Your task to perform on an android device: Show me the alarms in the clock app Image 0: 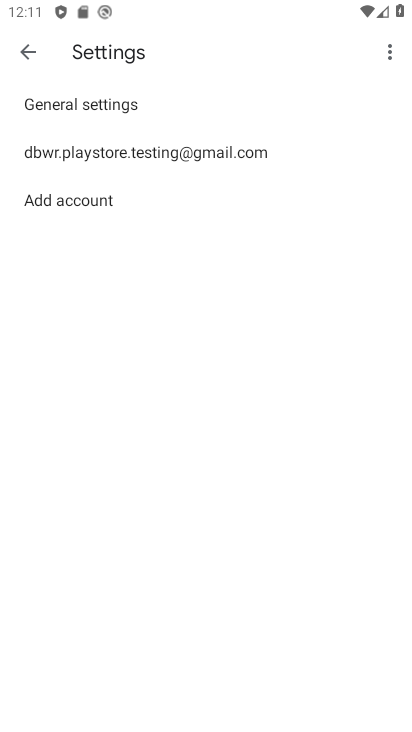
Step 0: press home button
Your task to perform on an android device: Show me the alarms in the clock app Image 1: 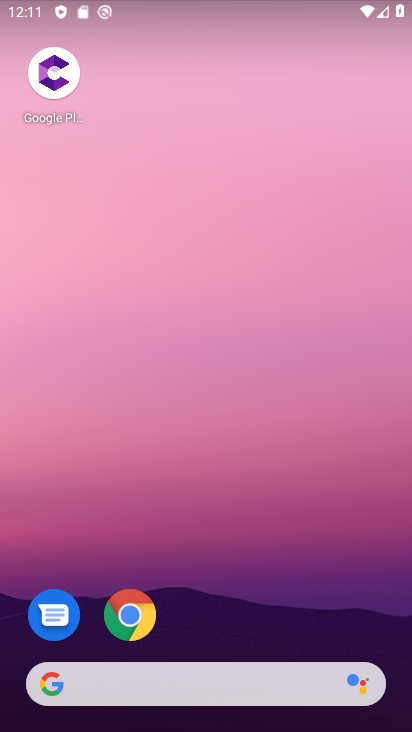
Step 1: drag from (181, 648) to (249, 162)
Your task to perform on an android device: Show me the alarms in the clock app Image 2: 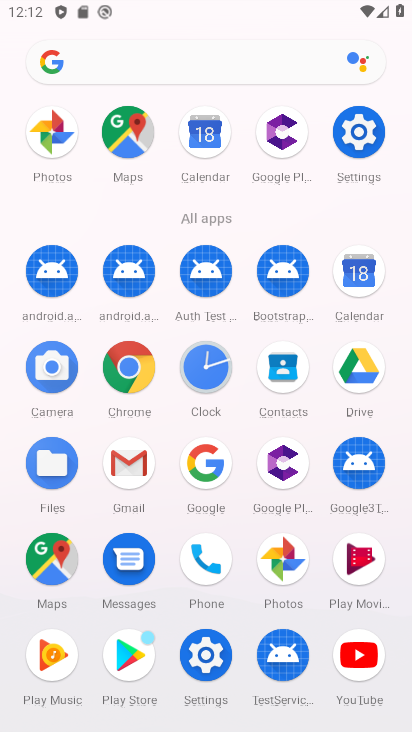
Step 2: click (224, 364)
Your task to perform on an android device: Show me the alarms in the clock app Image 3: 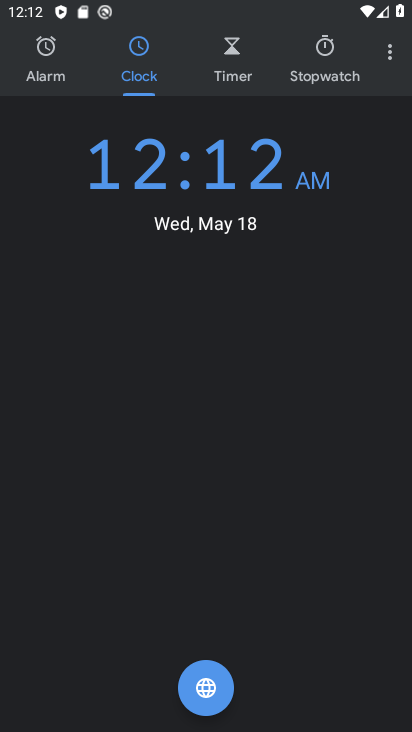
Step 3: click (60, 57)
Your task to perform on an android device: Show me the alarms in the clock app Image 4: 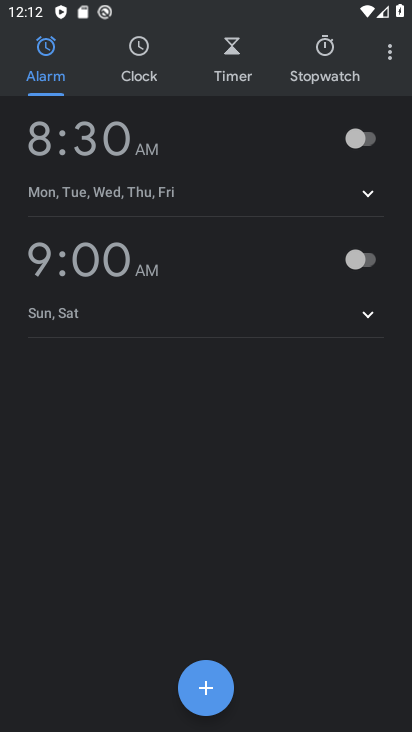
Step 4: task complete